Your task to perform on an android device: change notifications settings Image 0: 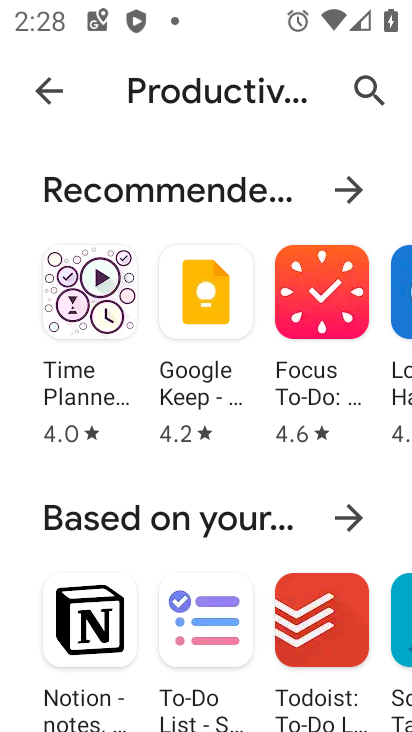
Step 0: press home button
Your task to perform on an android device: change notifications settings Image 1: 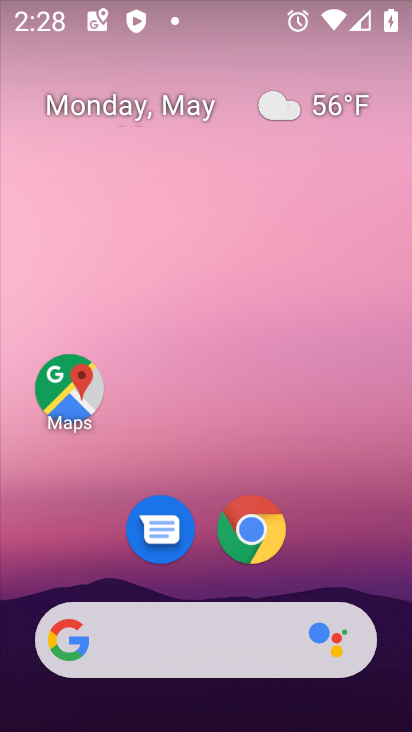
Step 1: drag from (348, 567) to (350, 79)
Your task to perform on an android device: change notifications settings Image 2: 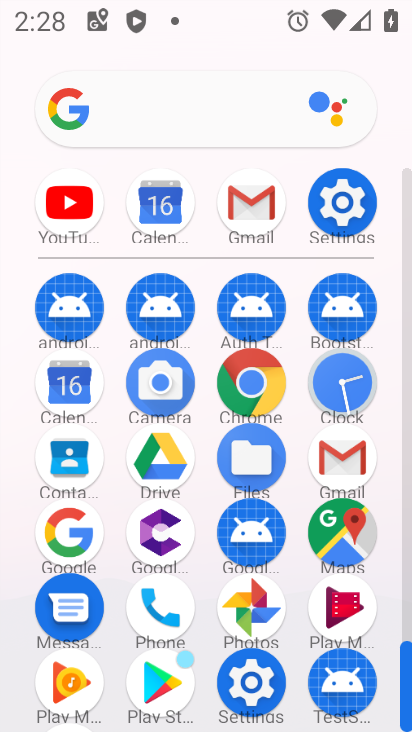
Step 2: click (331, 199)
Your task to perform on an android device: change notifications settings Image 3: 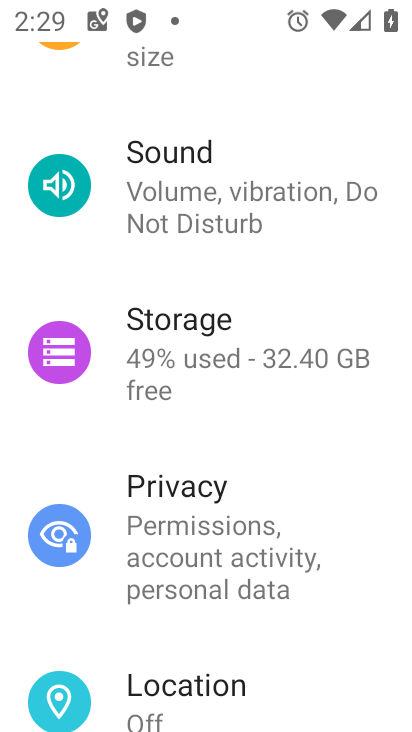
Step 3: drag from (169, 346) to (174, 535)
Your task to perform on an android device: change notifications settings Image 4: 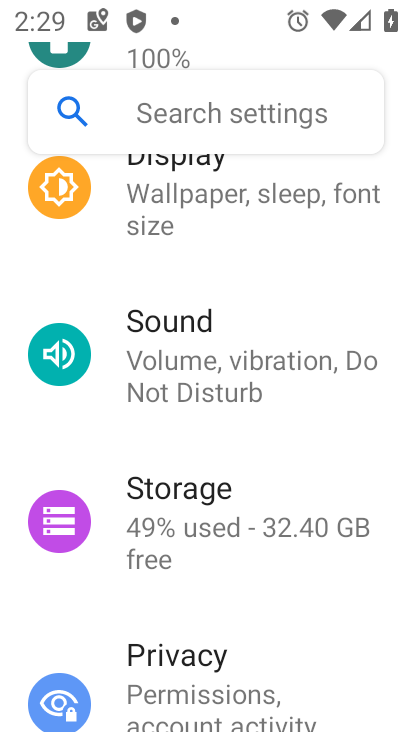
Step 4: drag from (264, 329) to (323, 565)
Your task to perform on an android device: change notifications settings Image 5: 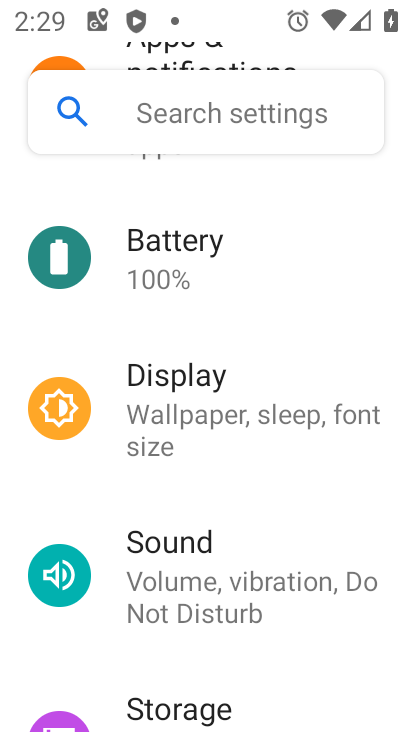
Step 5: drag from (300, 364) to (307, 581)
Your task to perform on an android device: change notifications settings Image 6: 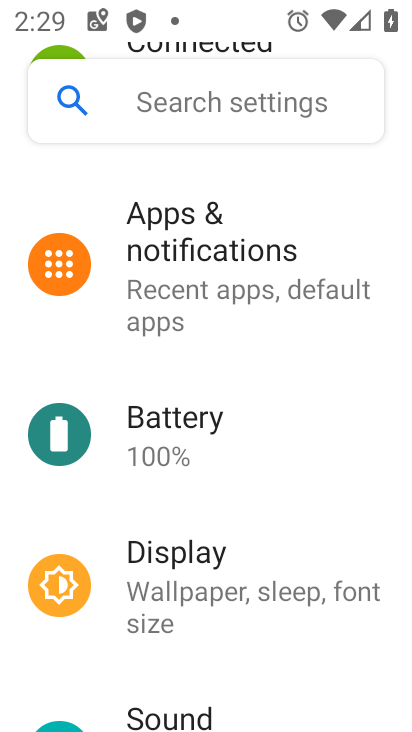
Step 6: drag from (274, 408) to (294, 567)
Your task to perform on an android device: change notifications settings Image 7: 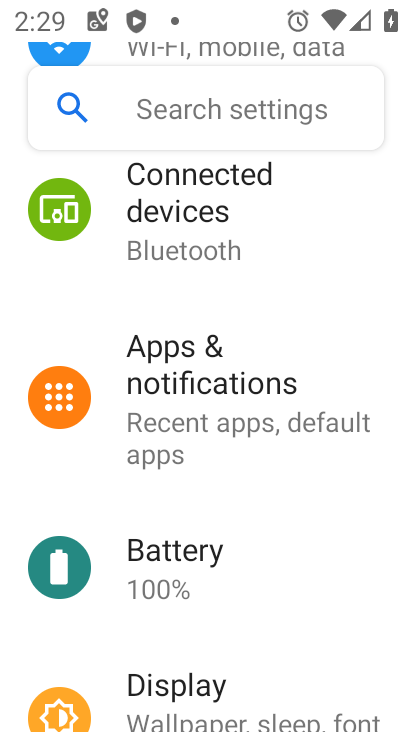
Step 7: click (208, 444)
Your task to perform on an android device: change notifications settings Image 8: 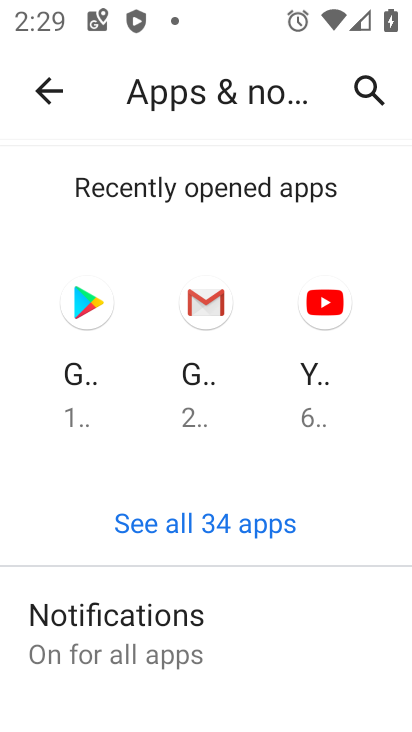
Step 8: click (131, 646)
Your task to perform on an android device: change notifications settings Image 9: 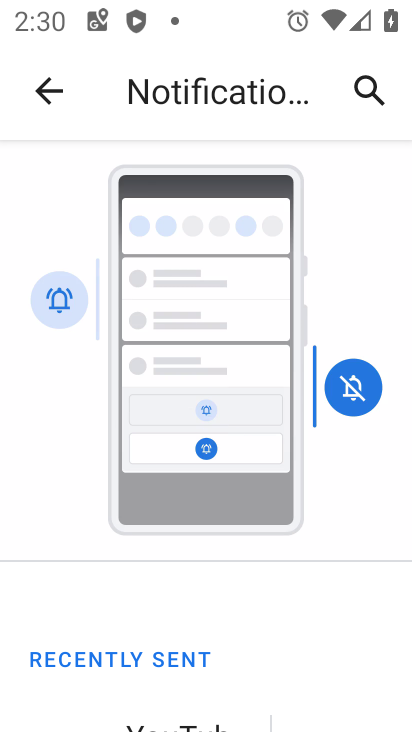
Step 9: task complete